Your task to perform on an android device: Open eBay Image 0: 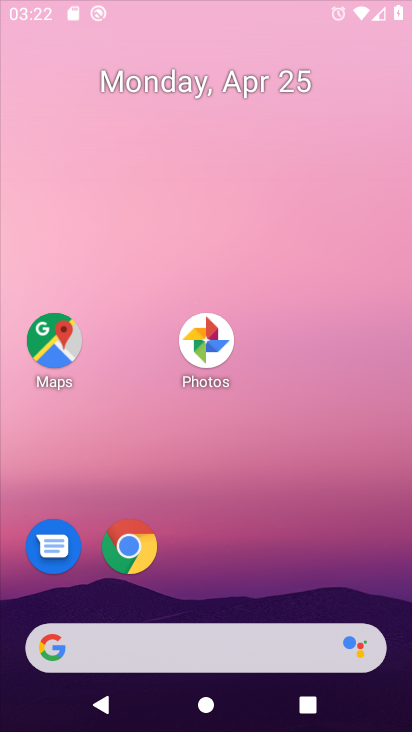
Step 0: click (311, 315)
Your task to perform on an android device: Open eBay Image 1: 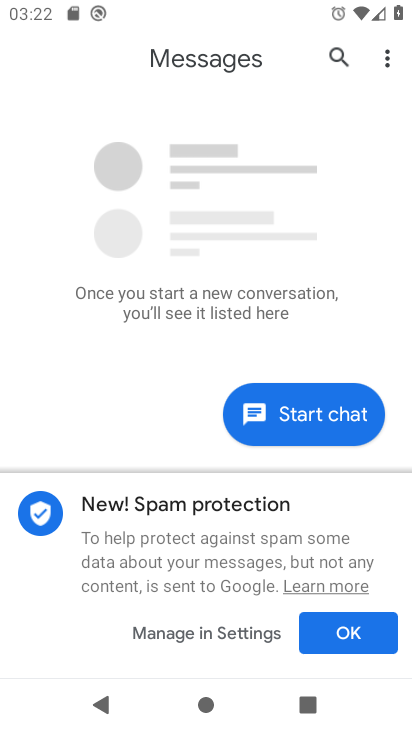
Step 1: press home button
Your task to perform on an android device: Open eBay Image 2: 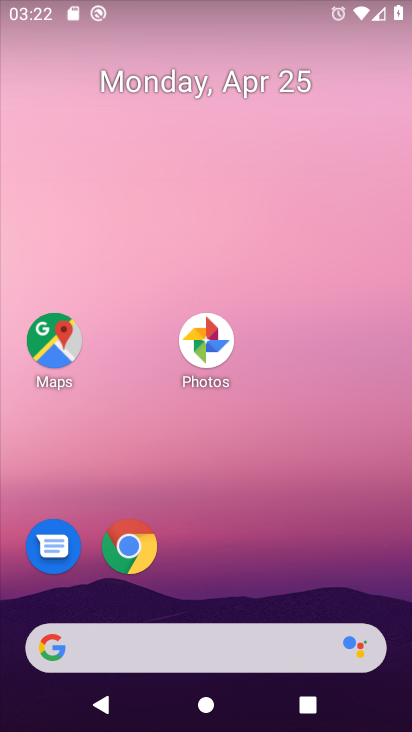
Step 2: drag from (276, 567) to (326, 223)
Your task to perform on an android device: Open eBay Image 3: 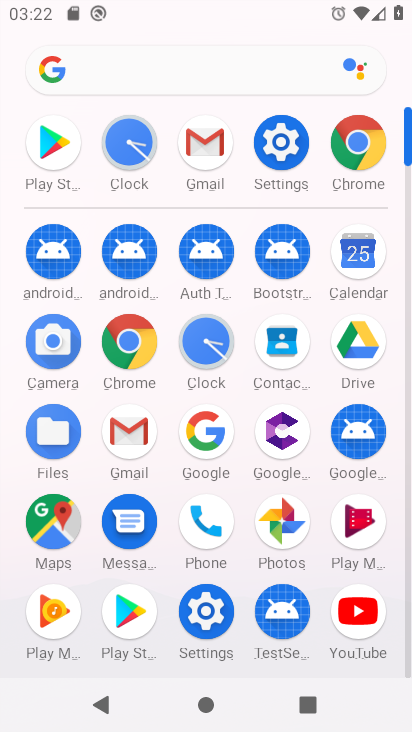
Step 3: click (135, 344)
Your task to perform on an android device: Open eBay Image 4: 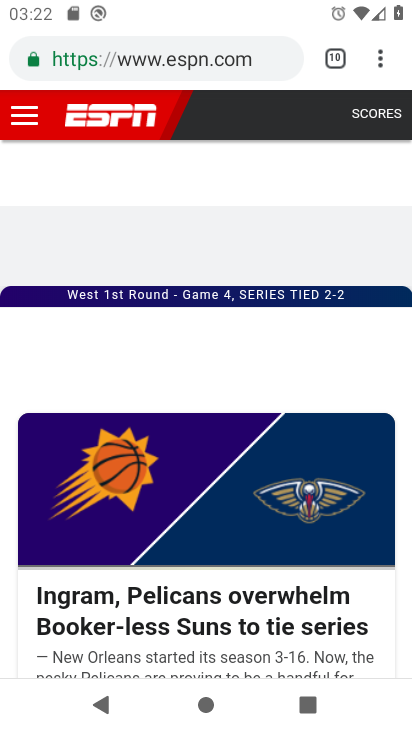
Step 4: click (374, 50)
Your task to perform on an android device: Open eBay Image 5: 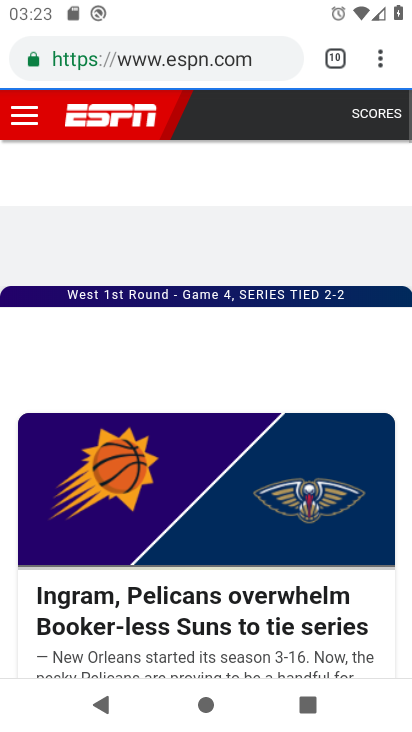
Step 5: click (373, 50)
Your task to perform on an android device: Open eBay Image 6: 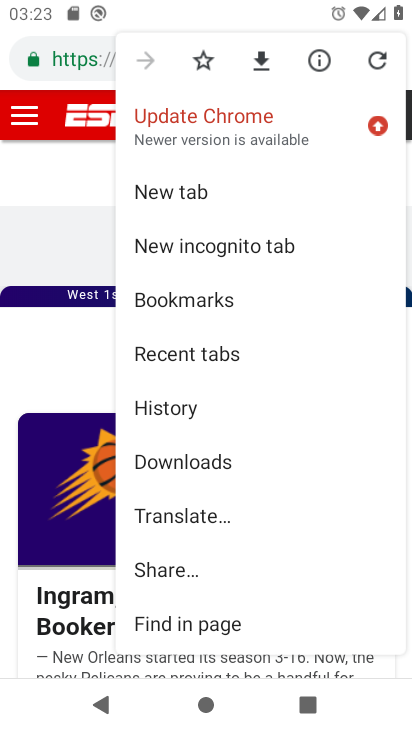
Step 6: click (155, 188)
Your task to perform on an android device: Open eBay Image 7: 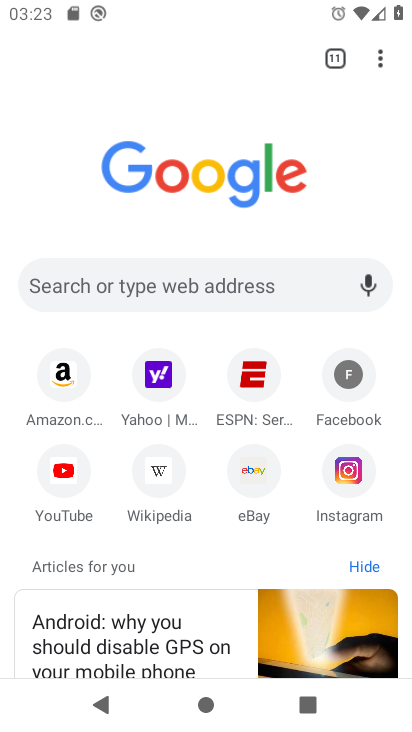
Step 7: click (196, 273)
Your task to perform on an android device: Open eBay Image 8: 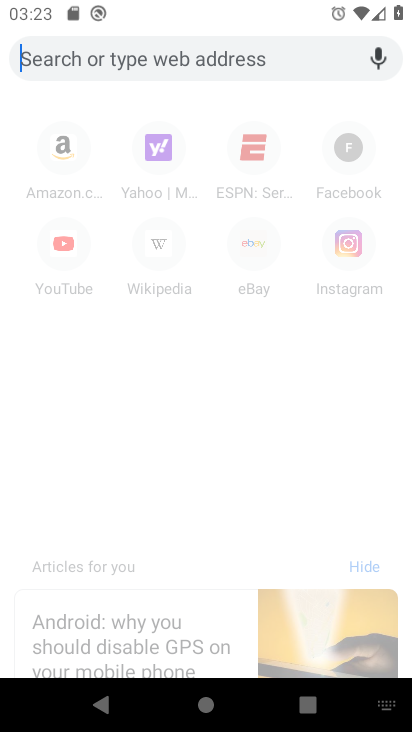
Step 8: click (266, 41)
Your task to perform on an android device: Open eBay Image 9: 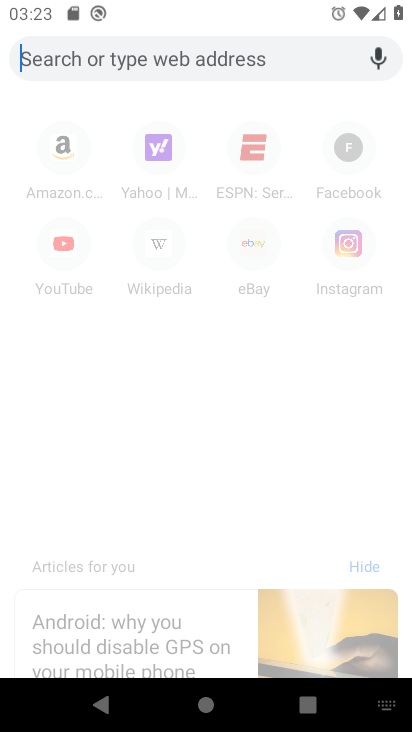
Step 9: type "eBay"
Your task to perform on an android device: Open eBay Image 10: 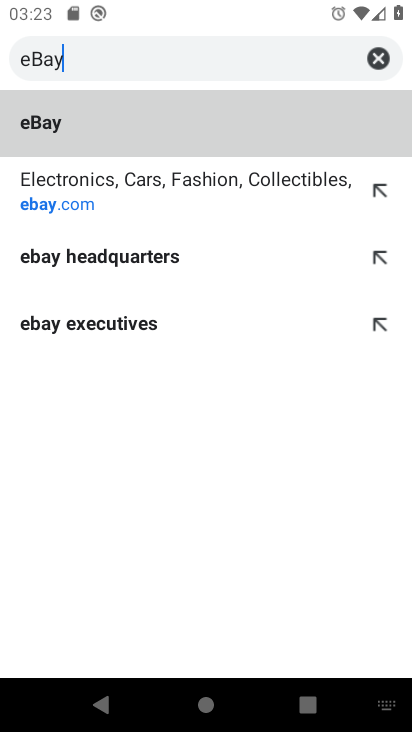
Step 10: click (183, 133)
Your task to perform on an android device: Open eBay Image 11: 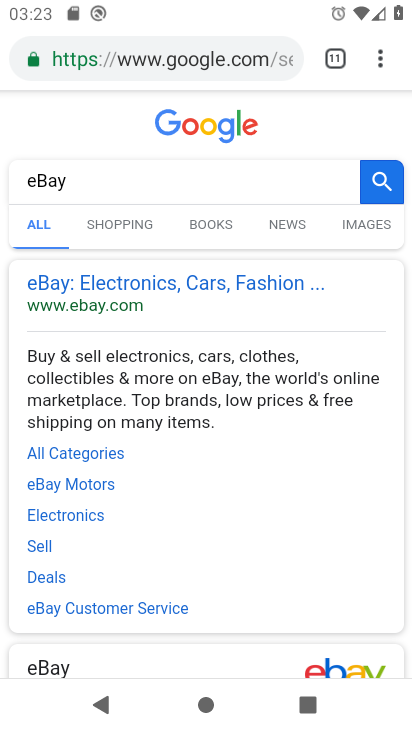
Step 11: task complete